Your task to perform on an android device: find which apps use the phone's location Image 0: 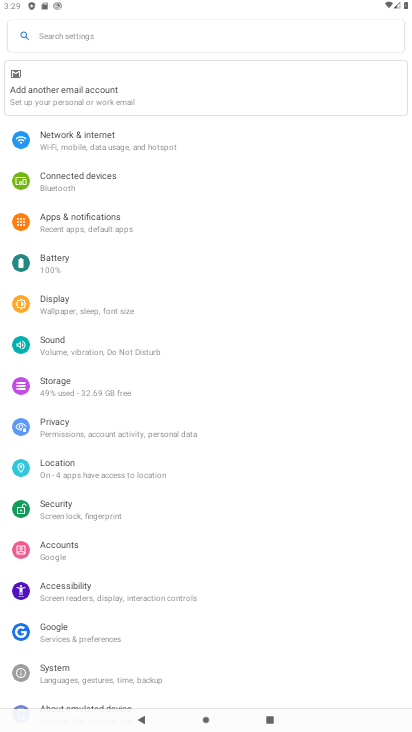
Step 0: drag from (173, 510) to (239, 249)
Your task to perform on an android device: find which apps use the phone's location Image 1: 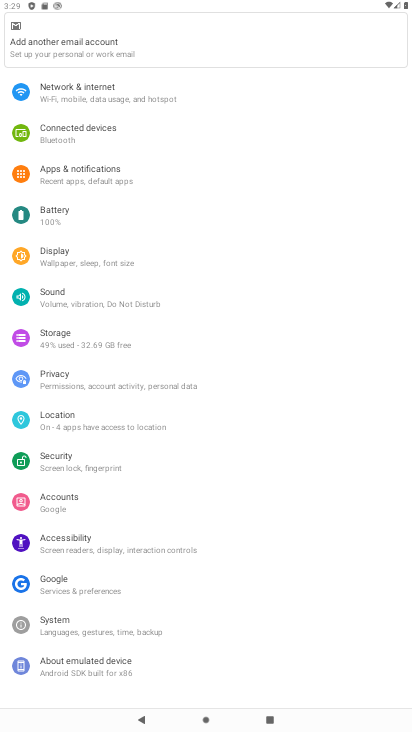
Step 1: click (88, 414)
Your task to perform on an android device: find which apps use the phone's location Image 2: 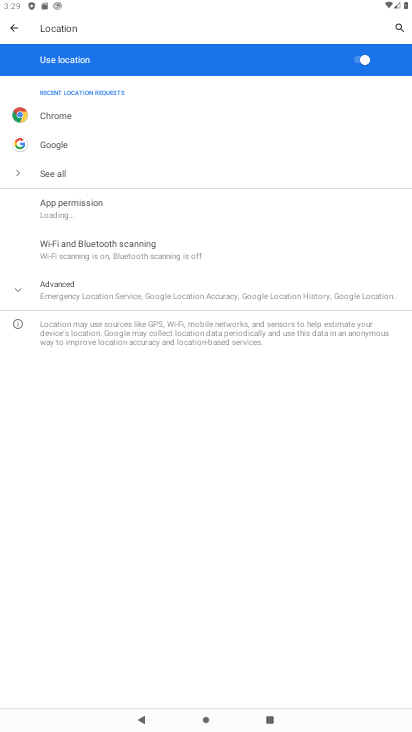
Step 2: click (99, 206)
Your task to perform on an android device: find which apps use the phone's location Image 3: 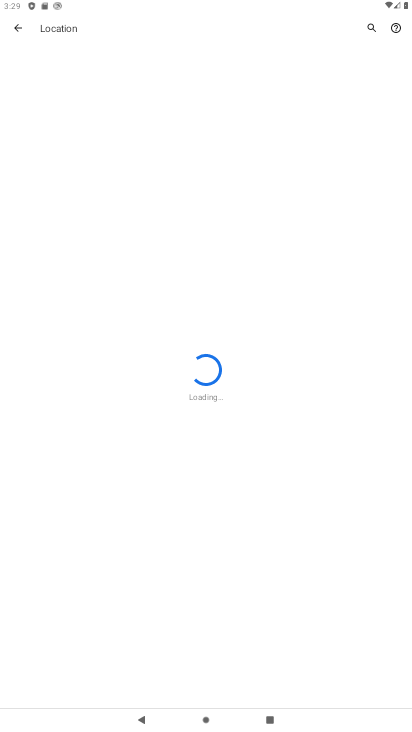
Step 3: task complete